Your task to perform on an android device: toggle sleep mode Image 0: 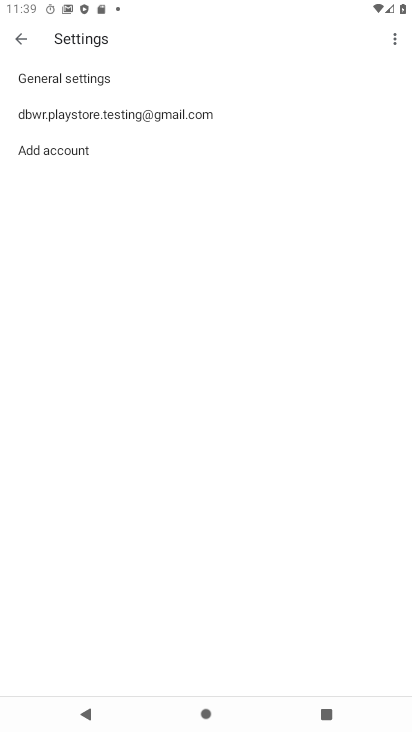
Step 0: press back button
Your task to perform on an android device: toggle sleep mode Image 1: 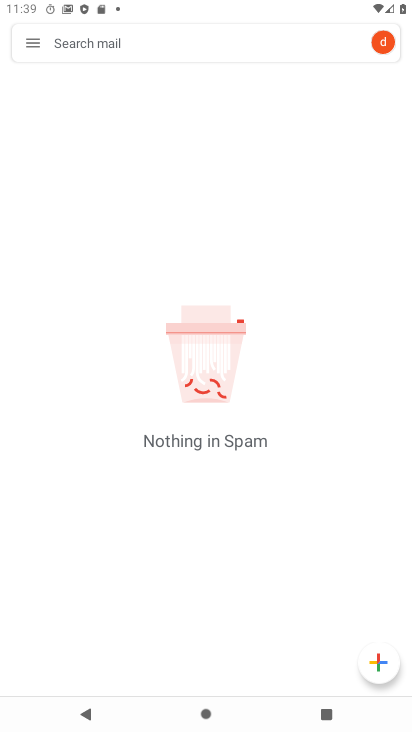
Step 1: press back button
Your task to perform on an android device: toggle sleep mode Image 2: 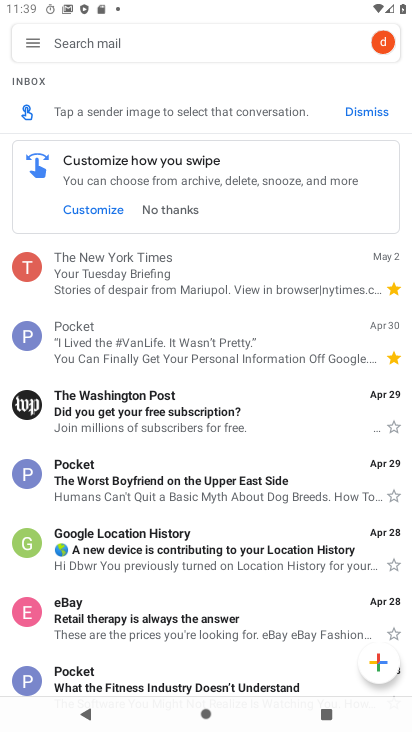
Step 2: press home button
Your task to perform on an android device: toggle sleep mode Image 3: 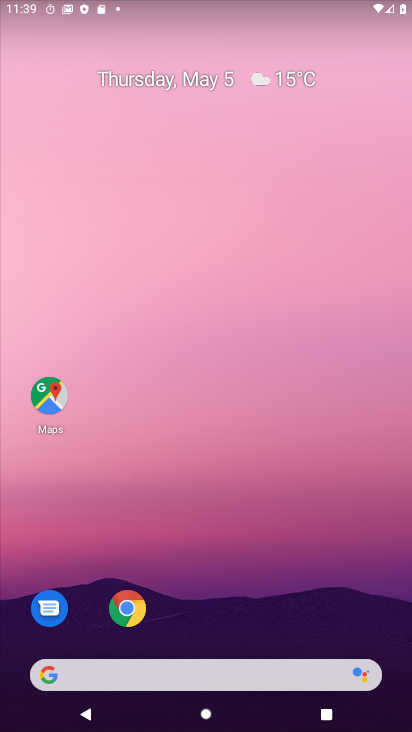
Step 3: drag from (240, 557) to (248, 34)
Your task to perform on an android device: toggle sleep mode Image 4: 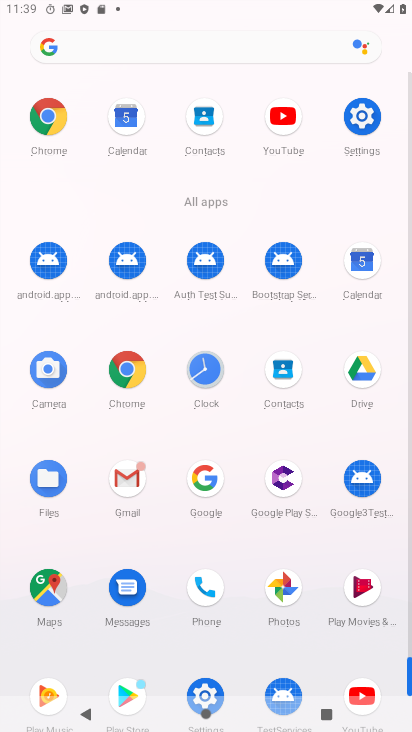
Step 4: drag from (240, 426) to (228, 315)
Your task to perform on an android device: toggle sleep mode Image 5: 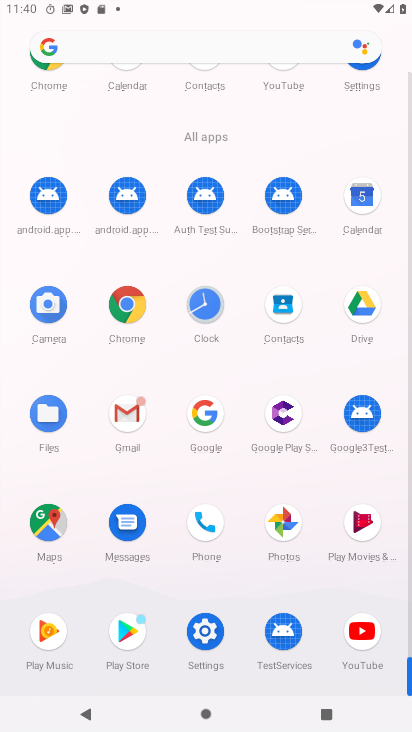
Step 5: drag from (232, 277) to (277, 371)
Your task to perform on an android device: toggle sleep mode Image 6: 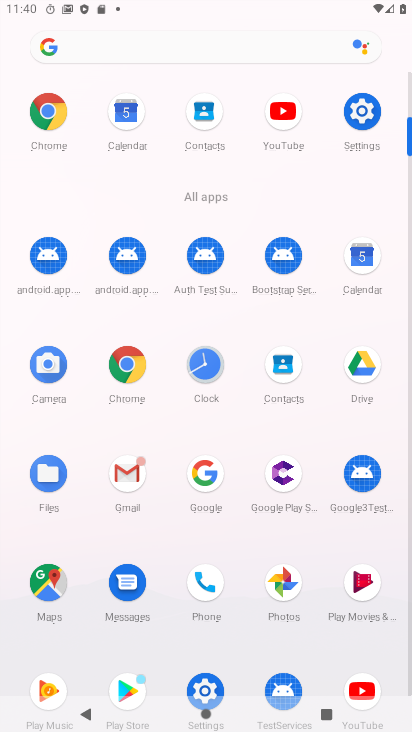
Step 6: click (361, 113)
Your task to perform on an android device: toggle sleep mode Image 7: 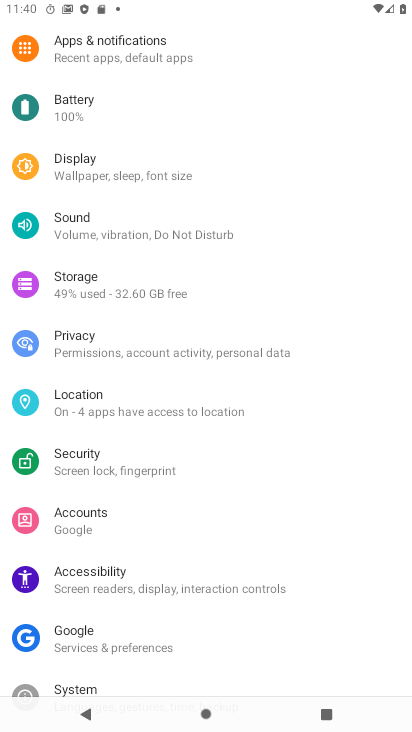
Step 7: click (167, 184)
Your task to perform on an android device: toggle sleep mode Image 8: 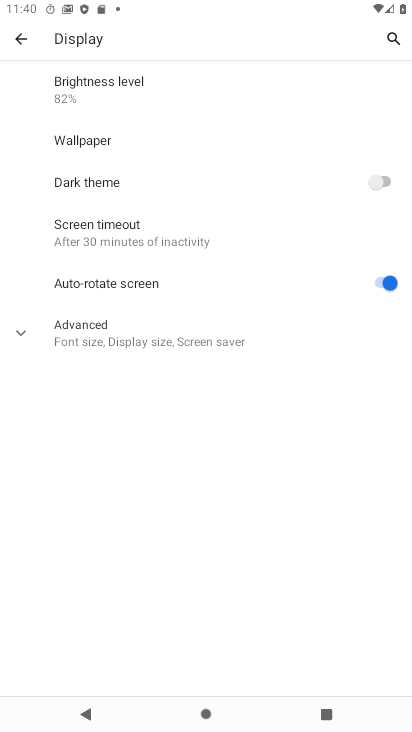
Step 8: click (120, 223)
Your task to perform on an android device: toggle sleep mode Image 9: 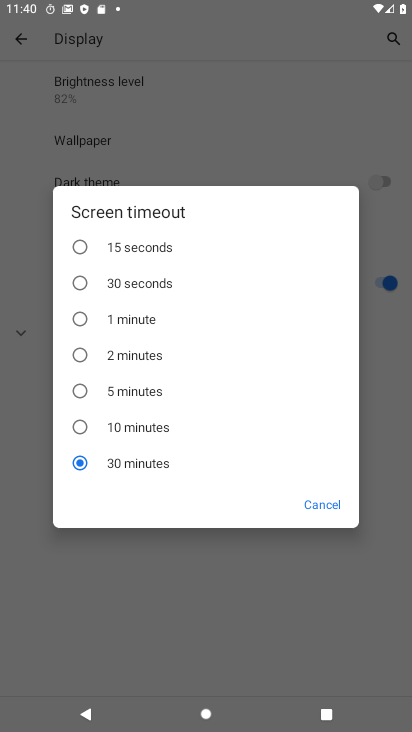
Step 9: click (143, 282)
Your task to perform on an android device: toggle sleep mode Image 10: 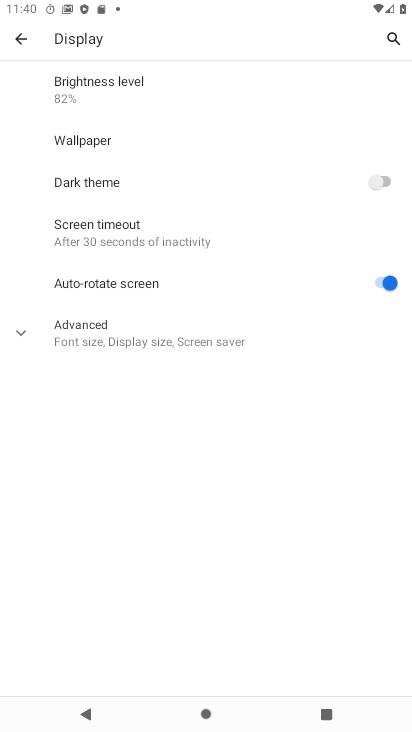
Step 10: click (159, 341)
Your task to perform on an android device: toggle sleep mode Image 11: 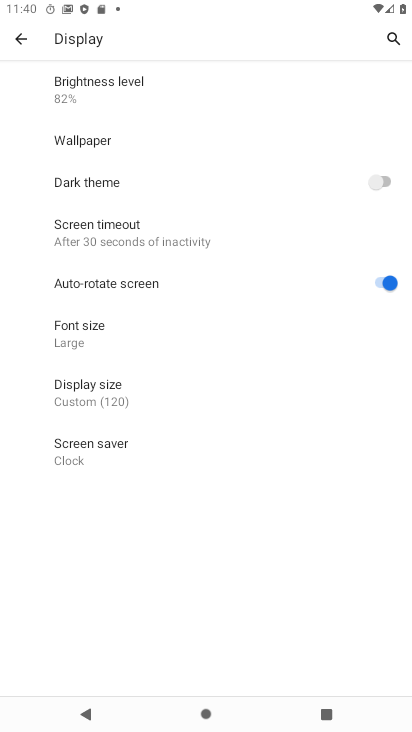
Step 11: task complete